Your task to perform on an android device: Go to notification settings Image 0: 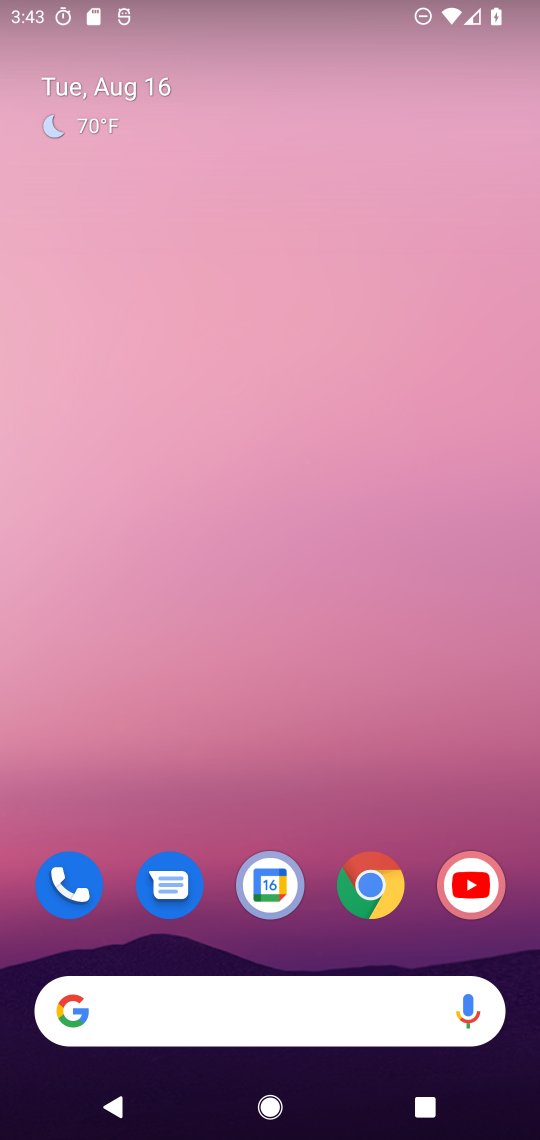
Step 0: drag from (261, 956) to (329, 210)
Your task to perform on an android device: Go to notification settings Image 1: 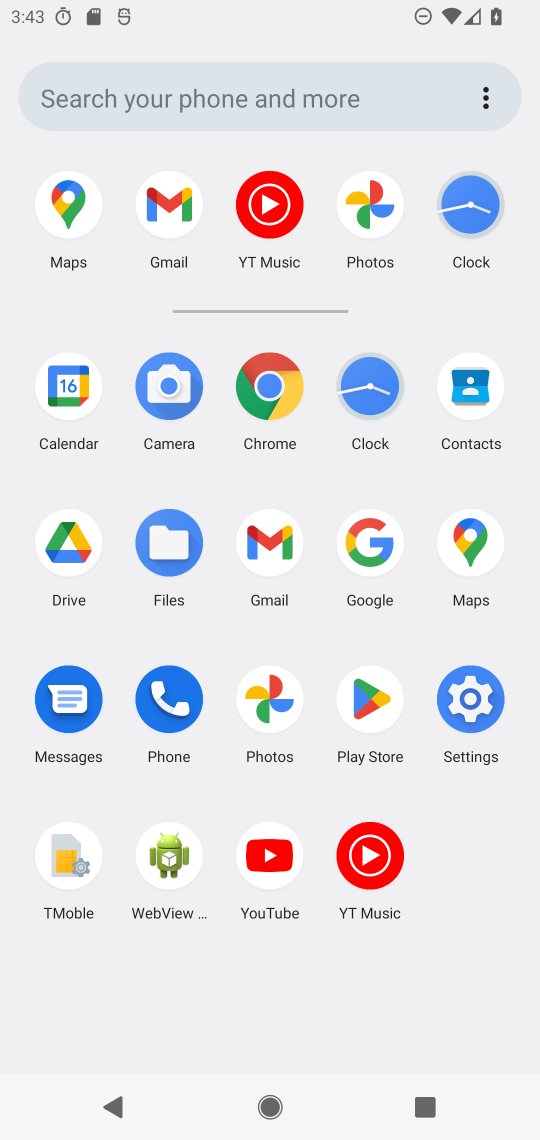
Step 1: click (474, 697)
Your task to perform on an android device: Go to notification settings Image 2: 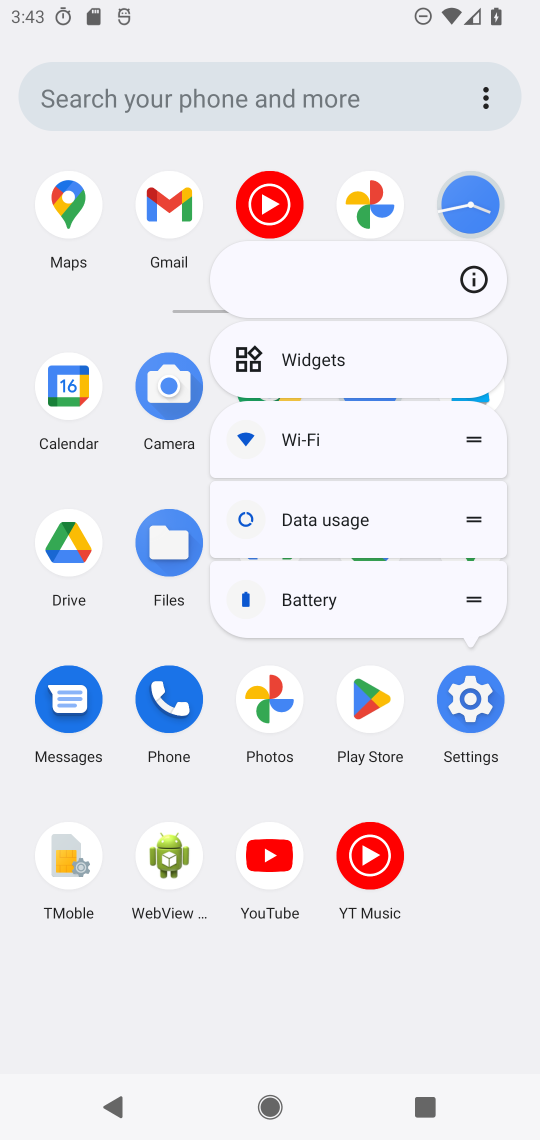
Step 2: click (474, 697)
Your task to perform on an android device: Go to notification settings Image 3: 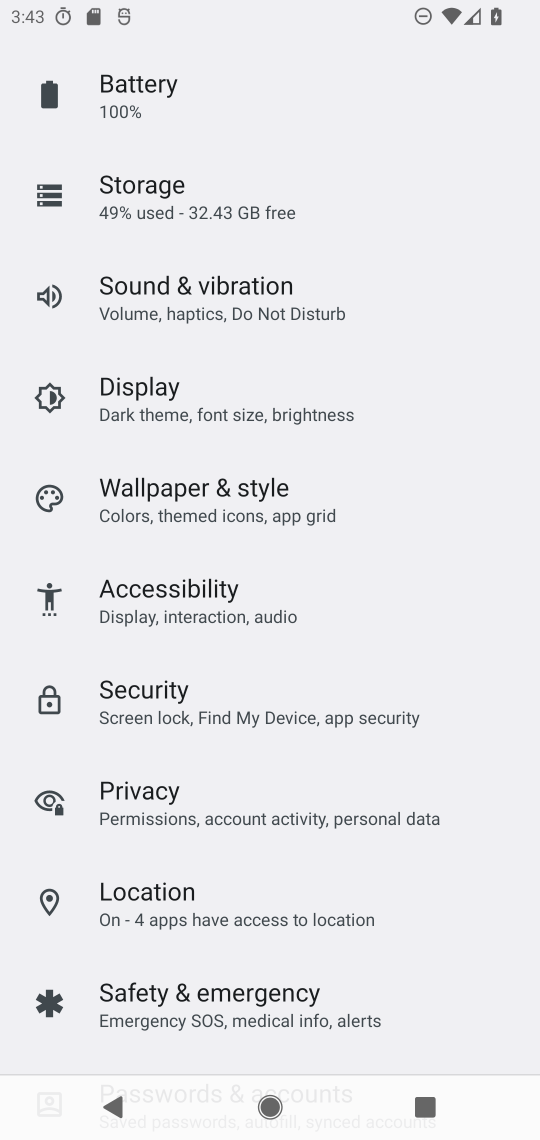
Step 3: drag from (231, 163) to (179, 996)
Your task to perform on an android device: Go to notification settings Image 4: 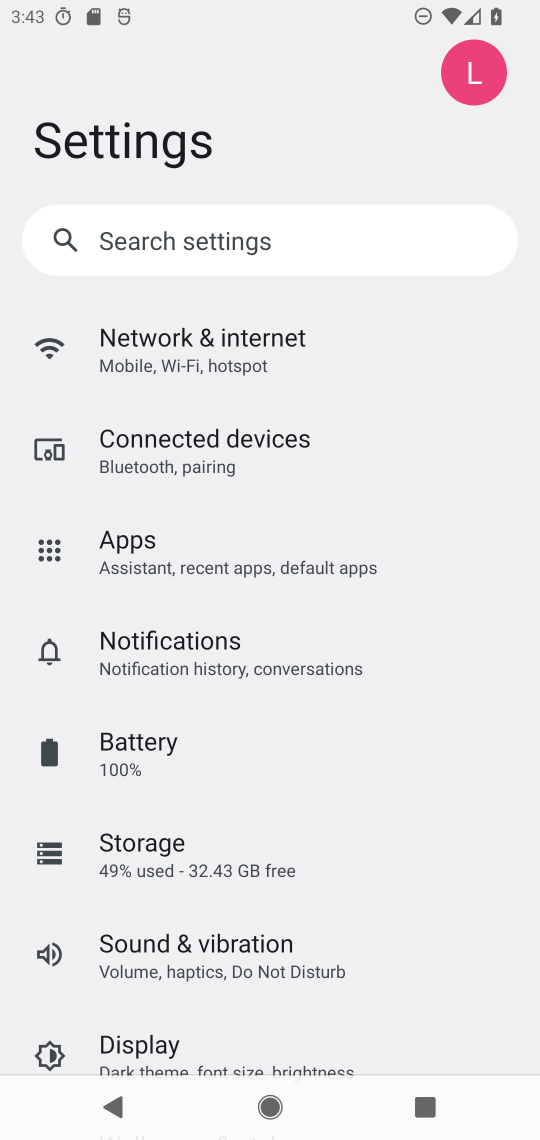
Step 4: click (214, 643)
Your task to perform on an android device: Go to notification settings Image 5: 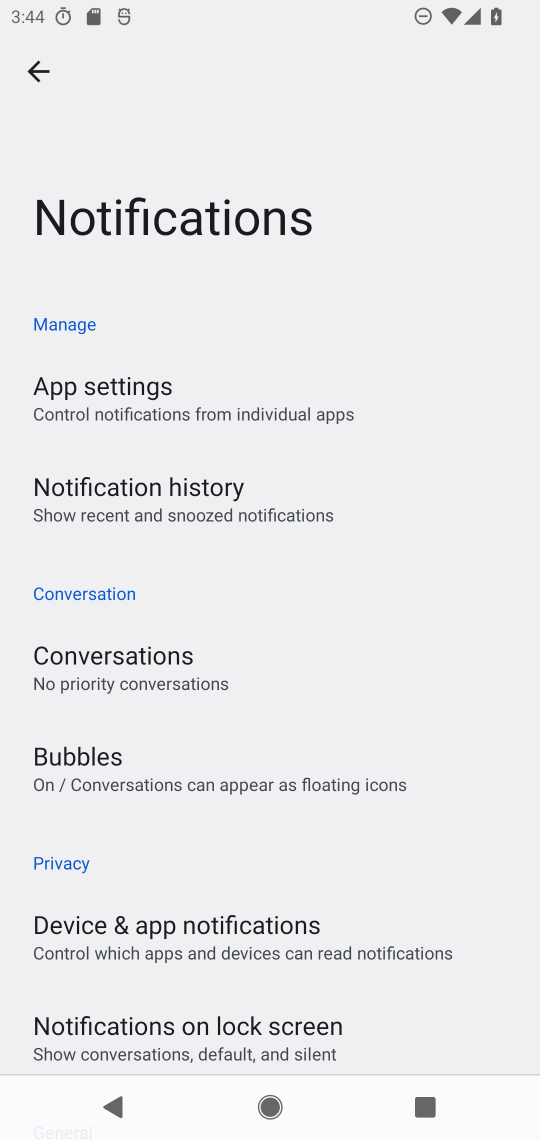
Step 5: task complete